Your task to perform on an android device: toggle airplane mode Image 0: 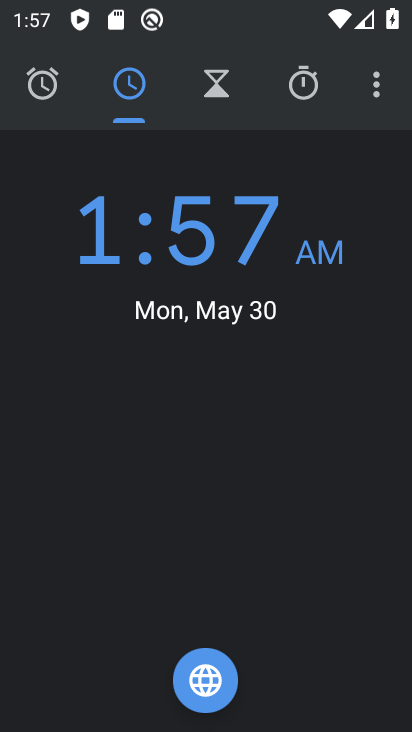
Step 0: press home button
Your task to perform on an android device: toggle airplane mode Image 1: 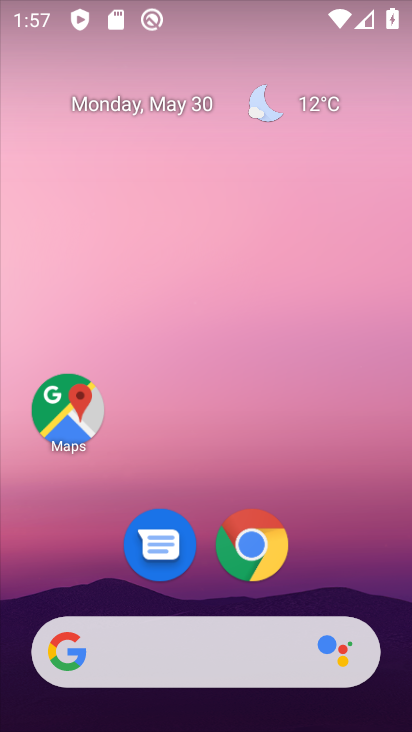
Step 1: drag from (251, 11) to (268, 565)
Your task to perform on an android device: toggle airplane mode Image 2: 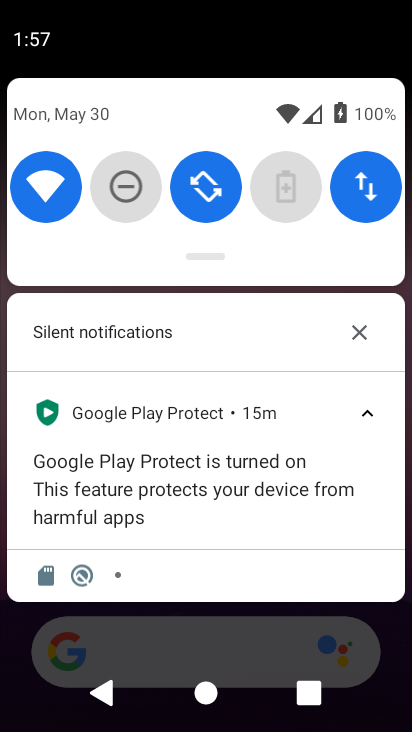
Step 2: drag from (216, 153) to (279, 664)
Your task to perform on an android device: toggle airplane mode Image 3: 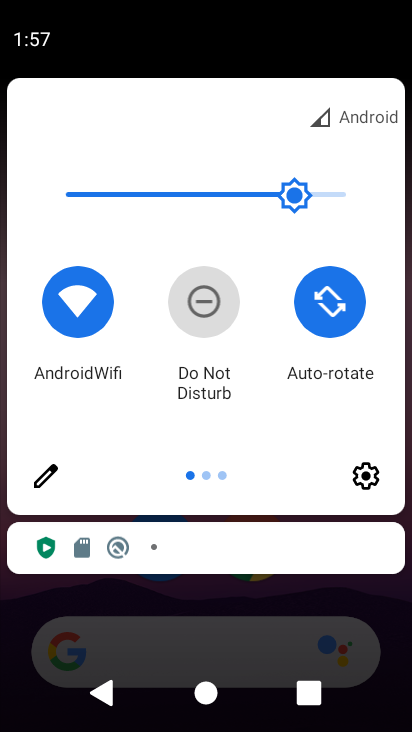
Step 3: drag from (361, 413) to (74, 409)
Your task to perform on an android device: toggle airplane mode Image 4: 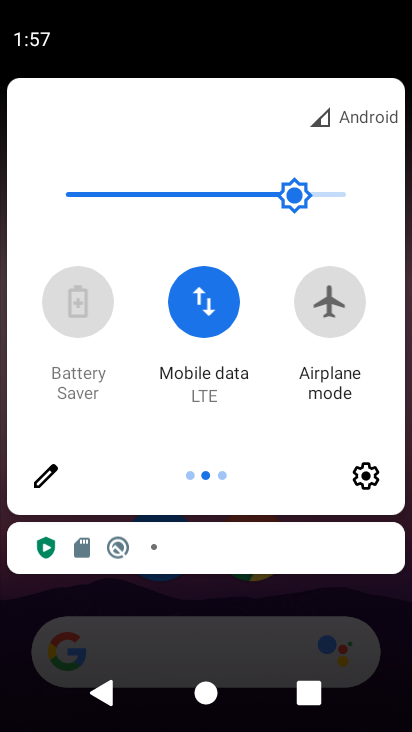
Step 4: click (316, 319)
Your task to perform on an android device: toggle airplane mode Image 5: 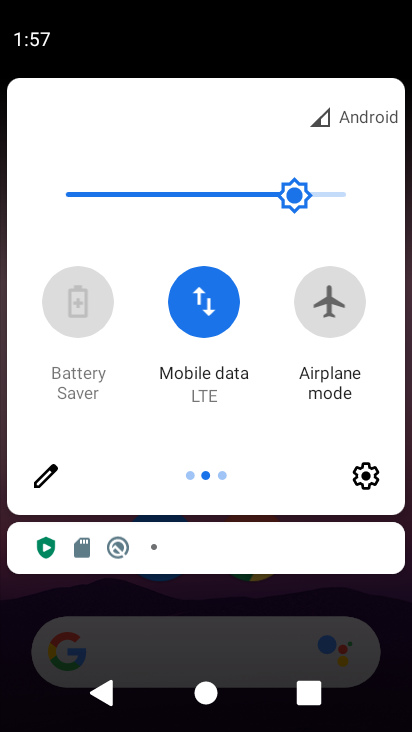
Step 5: click (316, 319)
Your task to perform on an android device: toggle airplane mode Image 6: 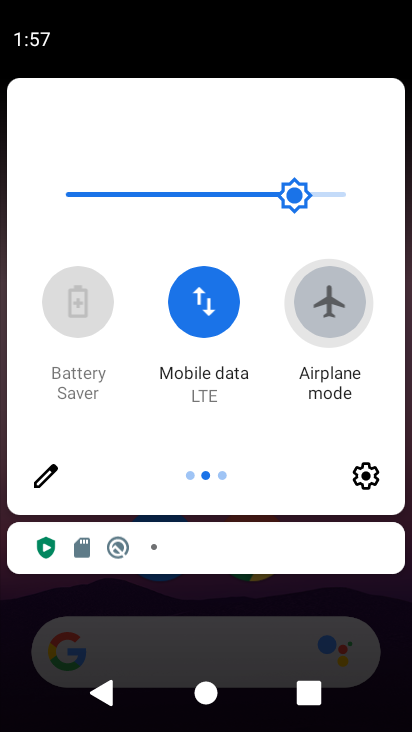
Step 6: click (316, 319)
Your task to perform on an android device: toggle airplane mode Image 7: 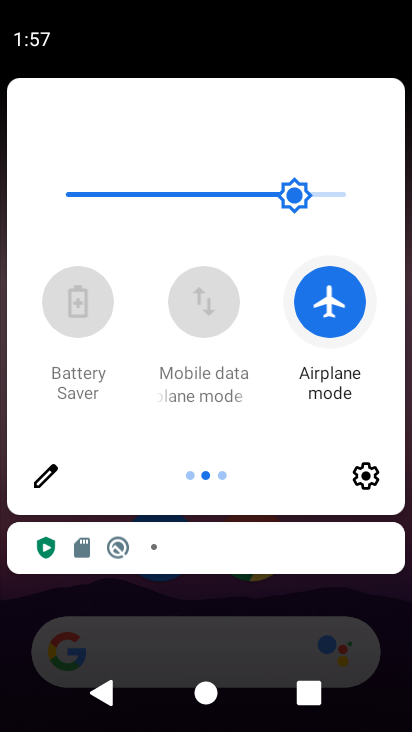
Step 7: click (316, 319)
Your task to perform on an android device: toggle airplane mode Image 8: 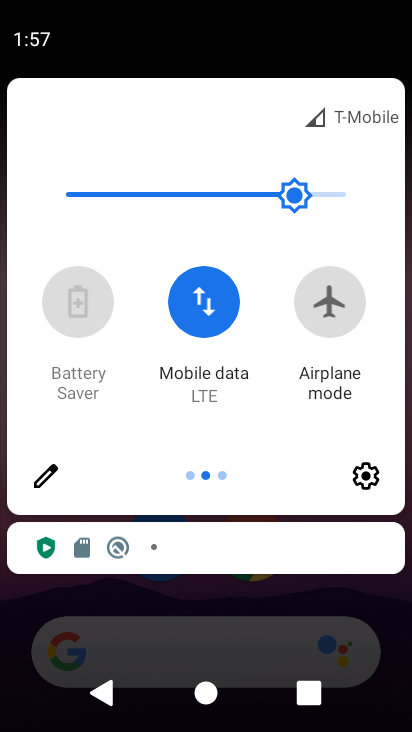
Step 8: task complete